Your task to perform on an android device: turn off location Image 0: 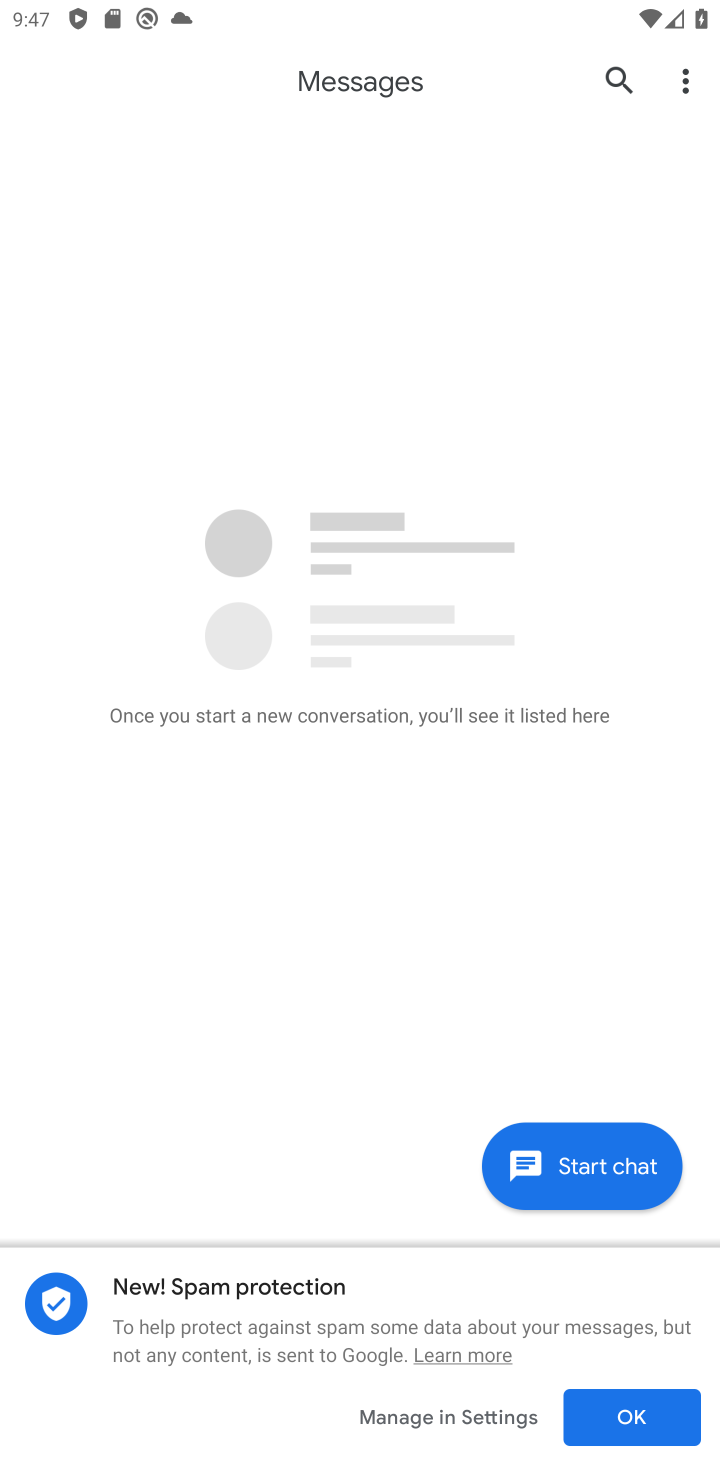
Step 0: press home button
Your task to perform on an android device: turn off location Image 1: 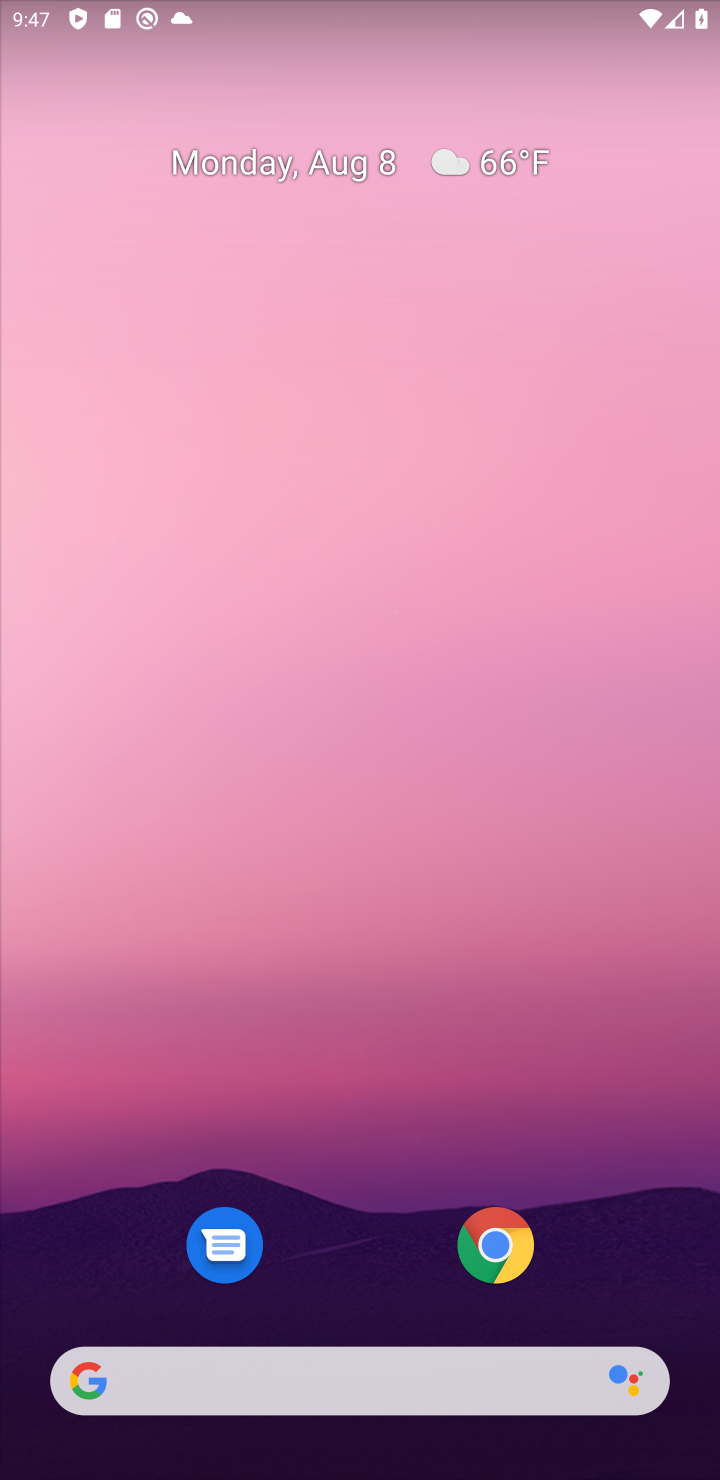
Step 1: drag from (327, 1167) to (355, 389)
Your task to perform on an android device: turn off location Image 2: 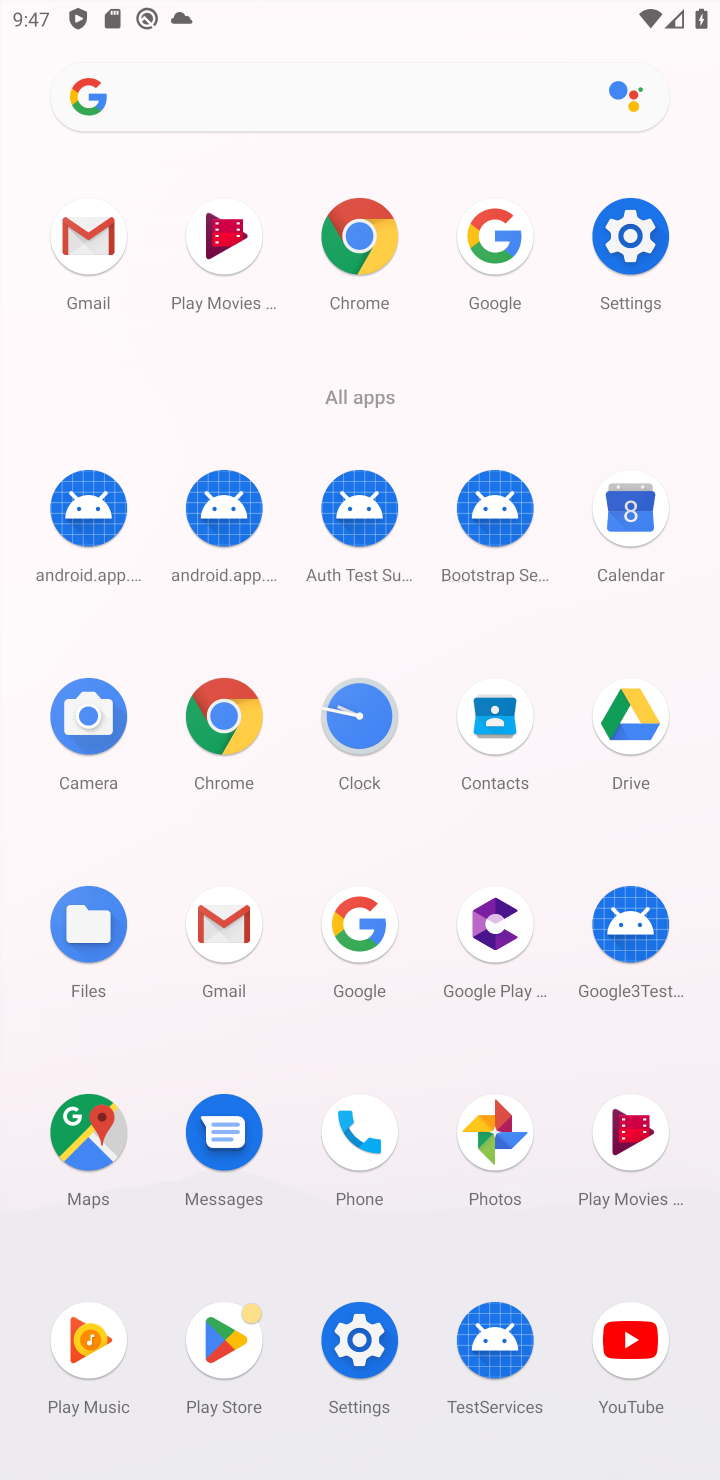
Step 2: click (632, 217)
Your task to perform on an android device: turn off location Image 3: 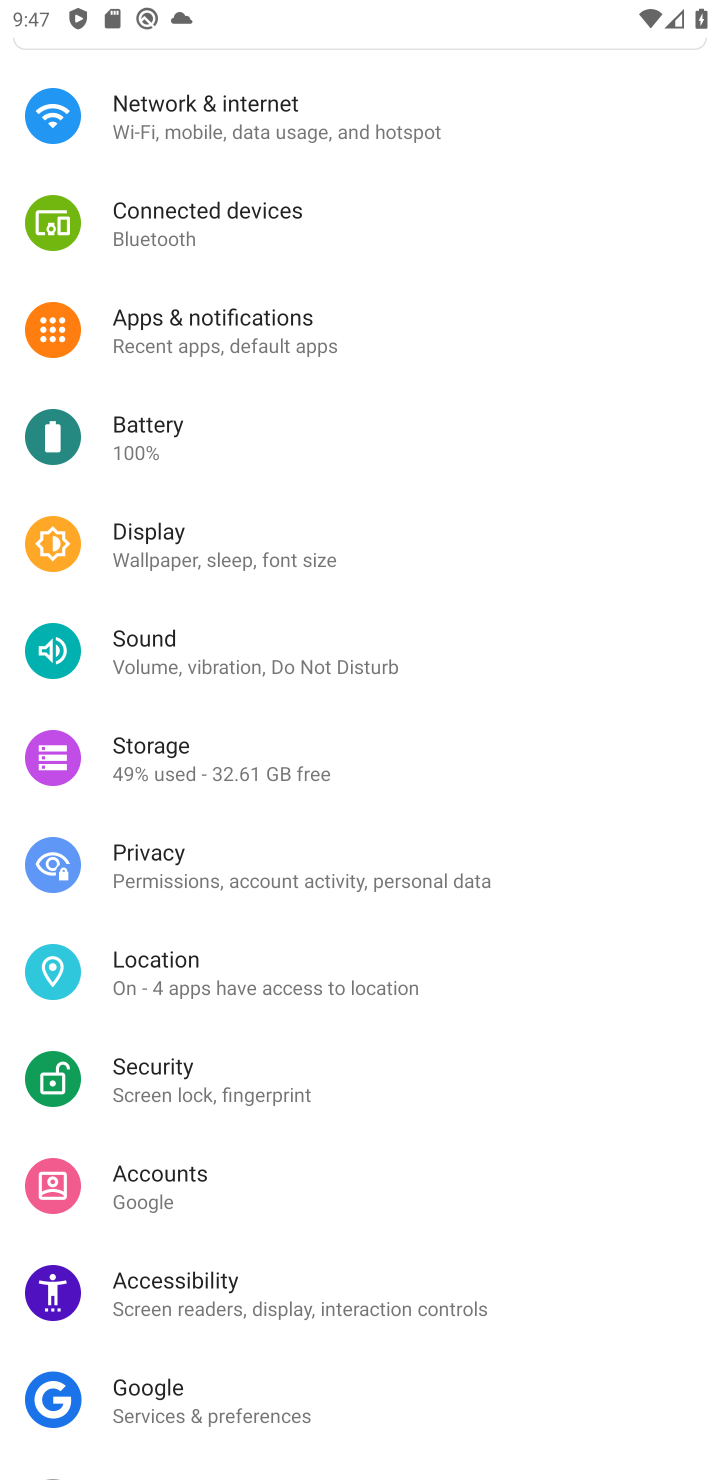
Step 3: click (156, 956)
Your task to perform on an android device: turn off location Image 4: 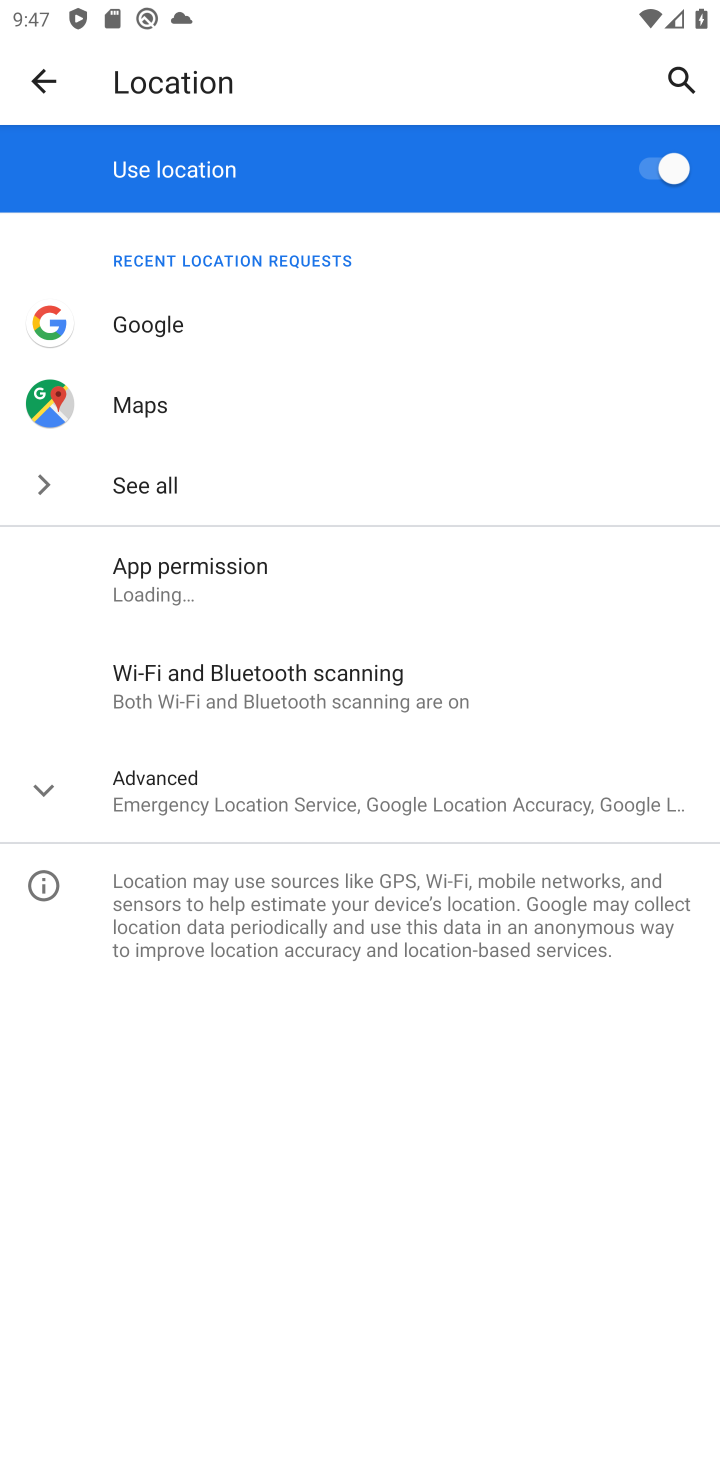
Step 4: click (663, 170)
Your task to perform on an android device: turn off location Image 5: 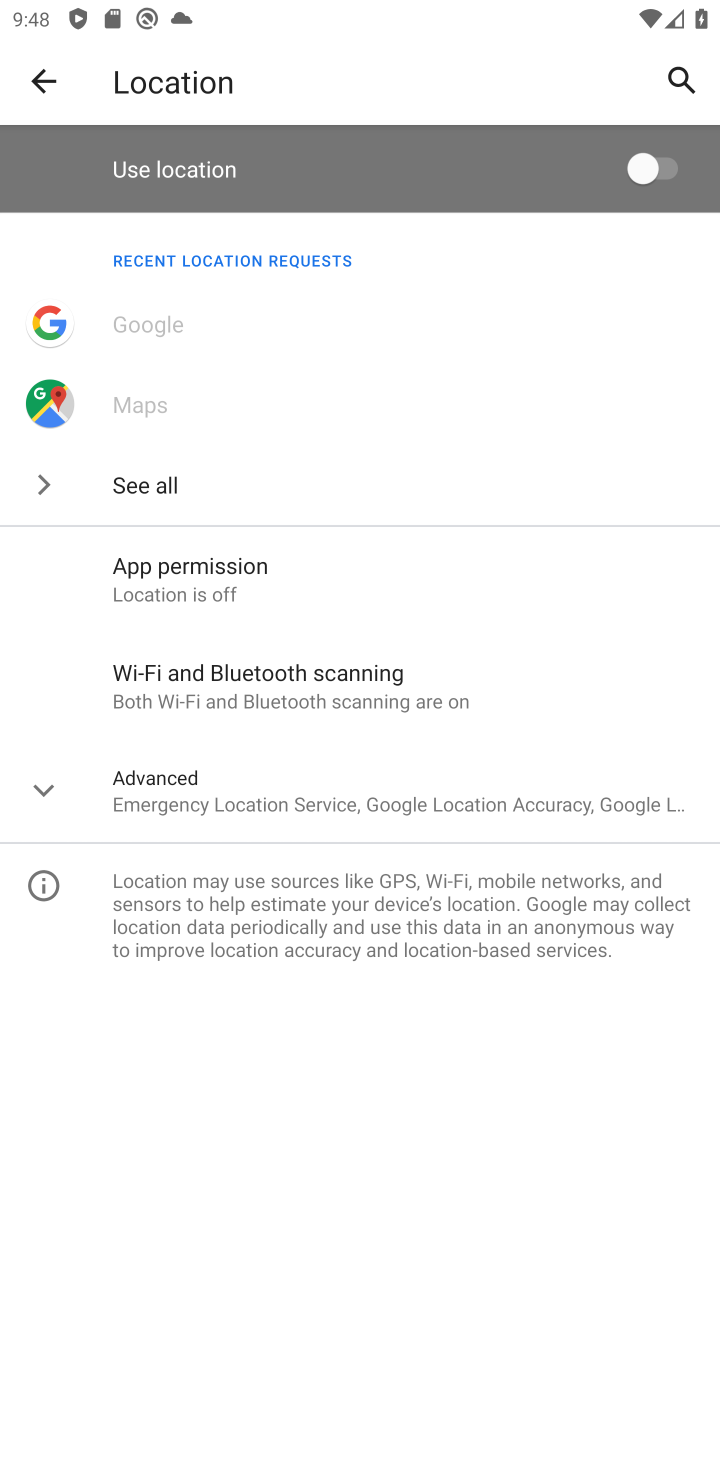
Step 5: task complete